Your task to perform on an android device: Go to Maps Image 0: 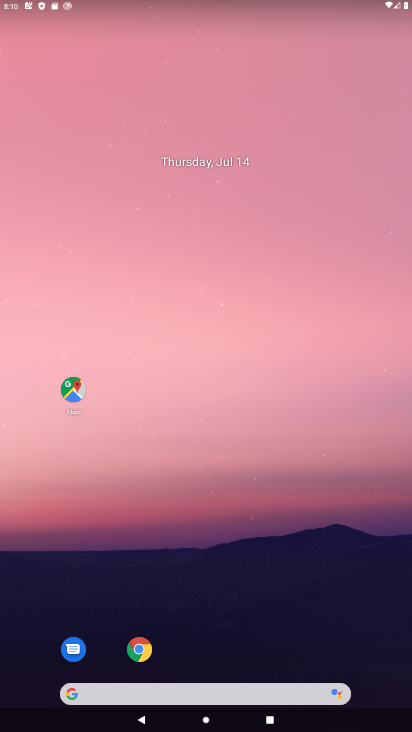
Step 0: click (74, 394)
Your task to perform on an android device: Go to Maps Image 1: 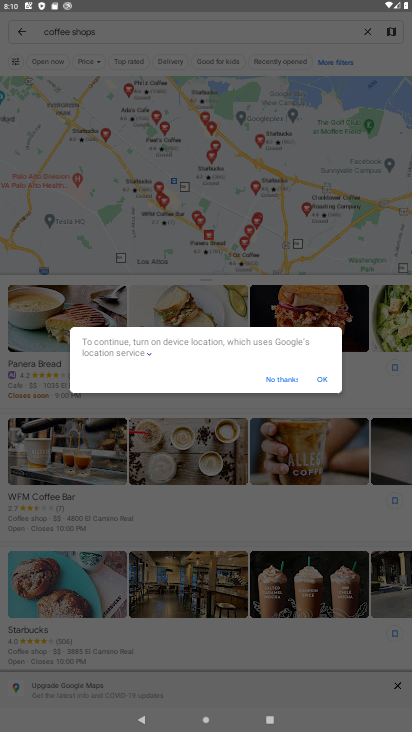
Step 1: click (321, 379)
Your task to perform on an android device: Go to Maps Image 2: 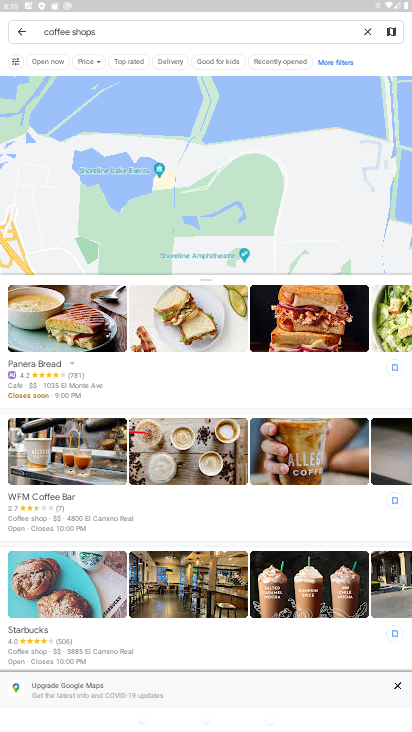
Step 2: task complete